Your task to perform on an android device: Go to Yahoo.com Image 0: 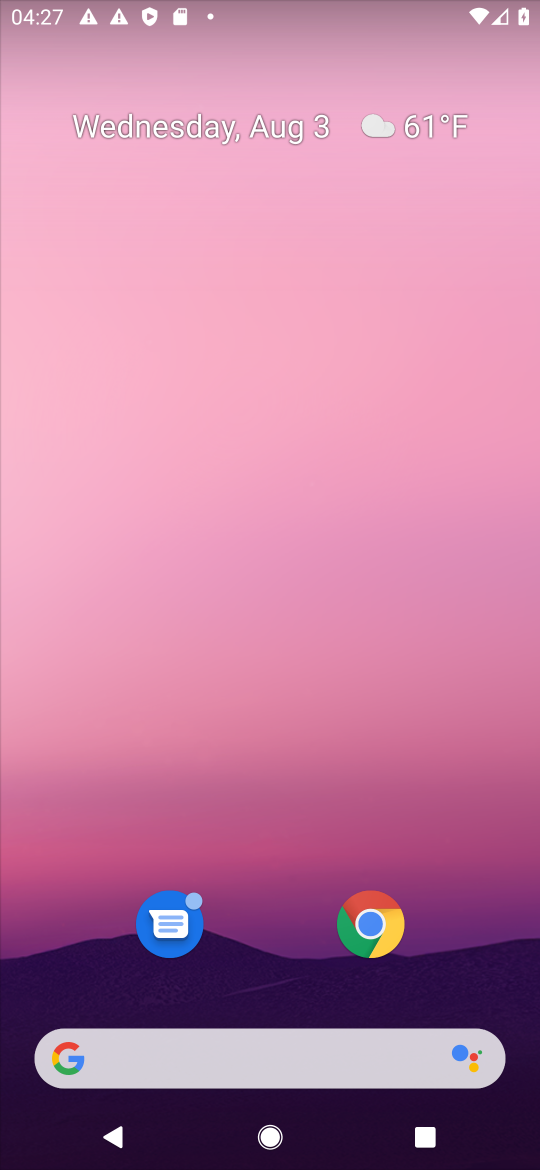
Step 0: click (372, 899)
Your task to perform on an android device: Go to Yahoo.com Image 1: 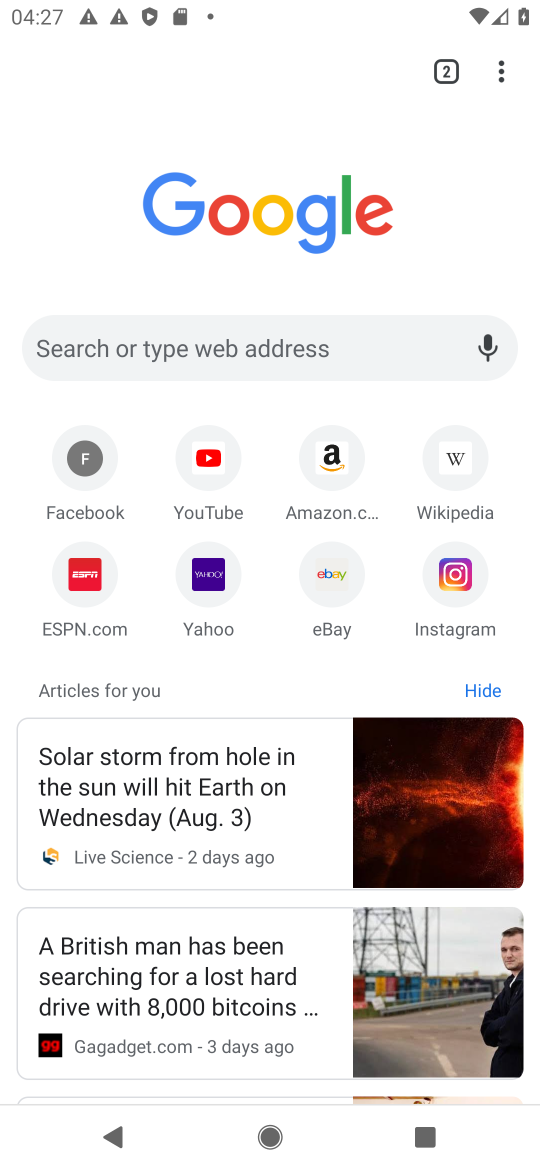
Step 1: click (204, 595)
Your task to perform on an android device: Go to Yahoo.com Image 2: 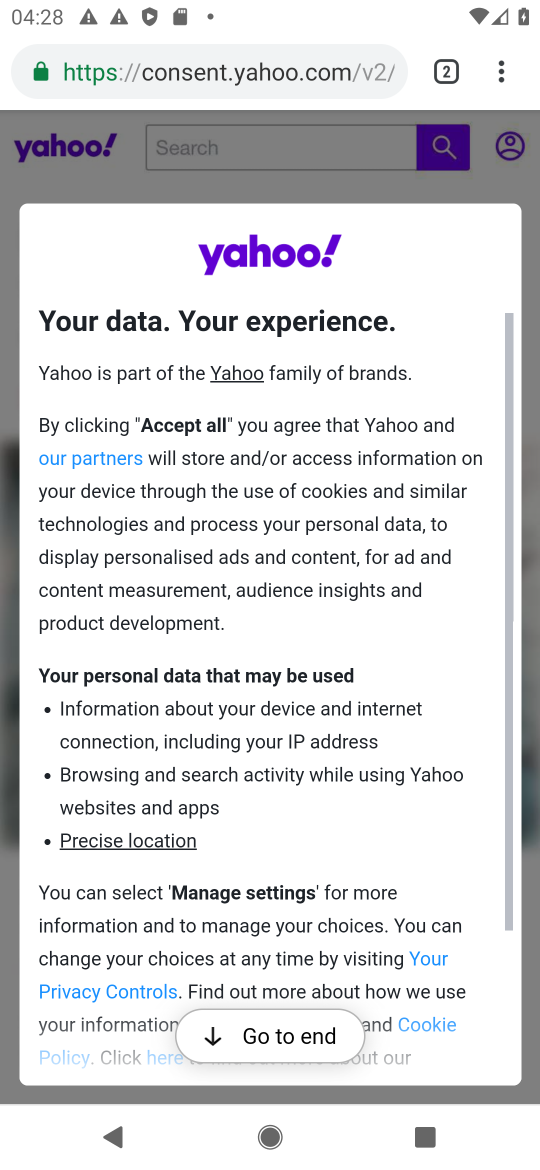
Step 2: task complete